Your task to perform on an android device: Open notification settings Image 0: 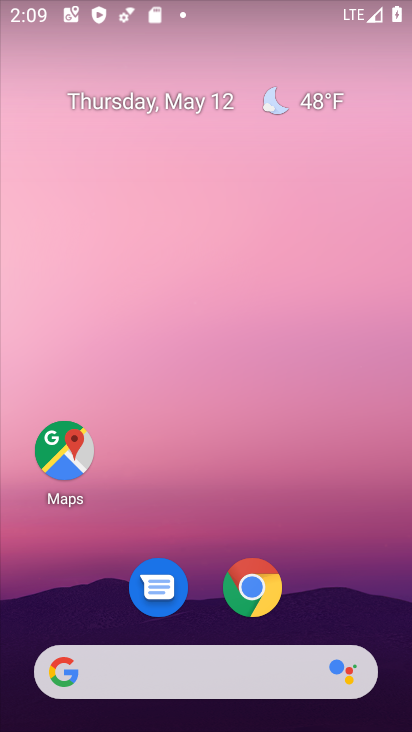
Step 0: drag from (252, 584) to (253, 240)
Your task to perform on an android device: Open notification settings Image 1: 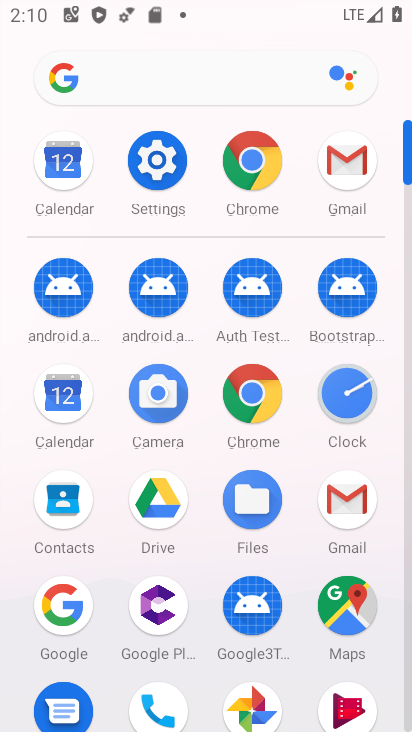
Step 1: click (150, 149)
Your task to perform on an android device: Open notification settings Image 2: 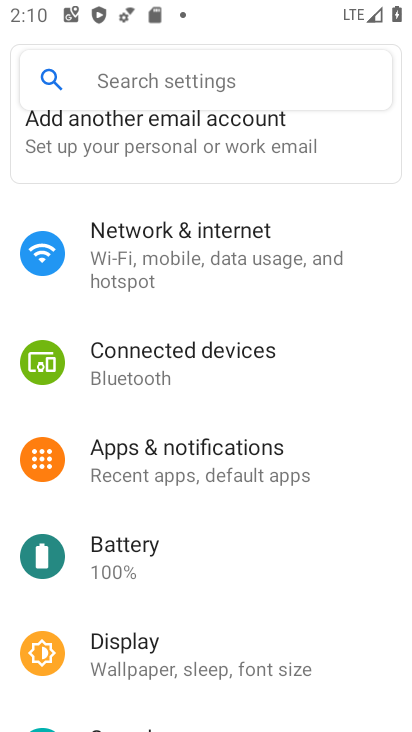
Step 2: click (217, 456)
Your task to perform on an android device: Open notification settings Image 3: 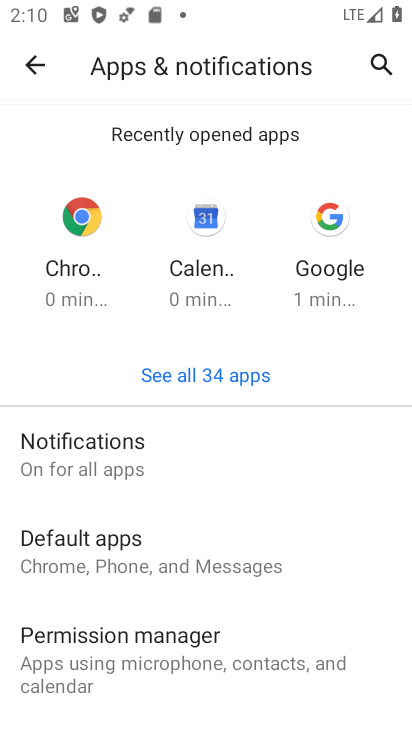
Step 3: click (148, 464)
Your task to perform on an android device: Open notification settings Image 4: 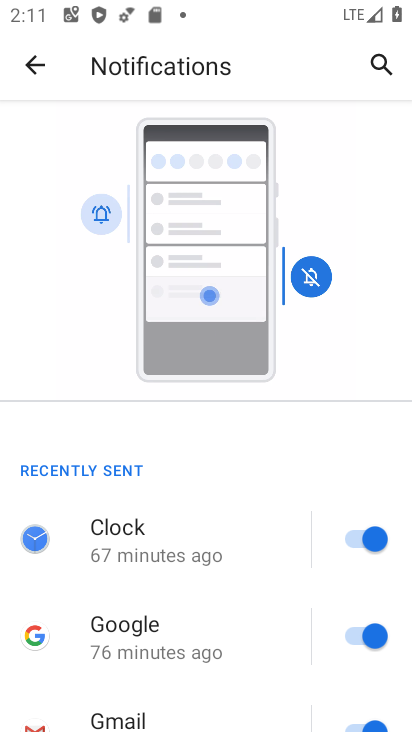
Step 4: task complete